Your task to perform on an android device: Open Google Image 0: 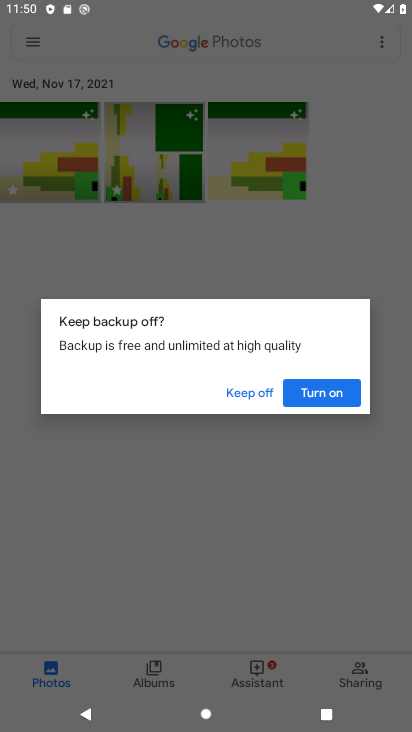
Step 0: press back button
Your task to perform on an android device: Open Google Image 1: 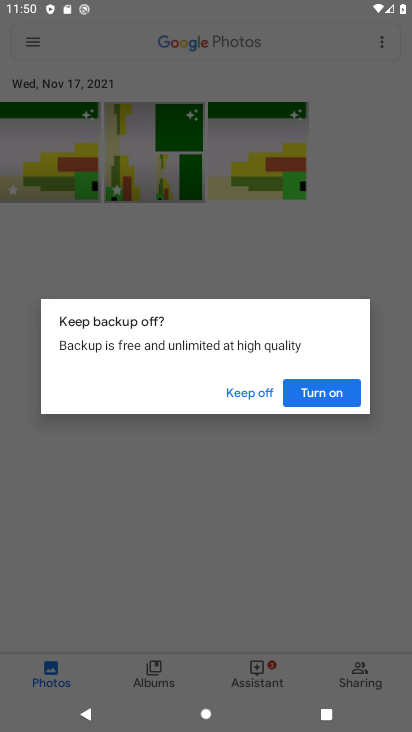
Step 1: press back button
Your task to perform on an android device: Open Google Image 2: 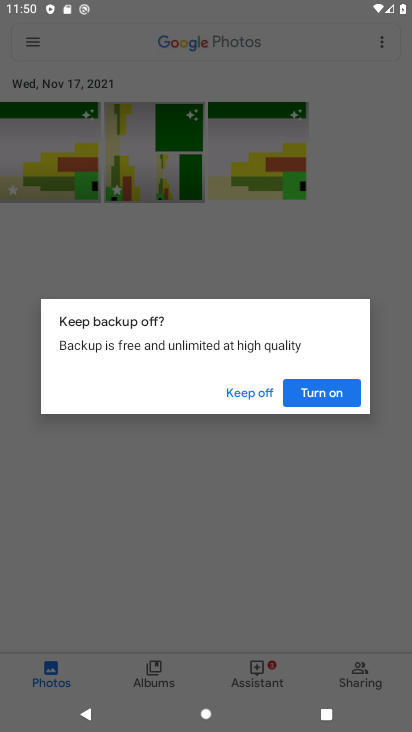
Step 2: press home button
Your task to perform on an android device: Open Google Image 3: 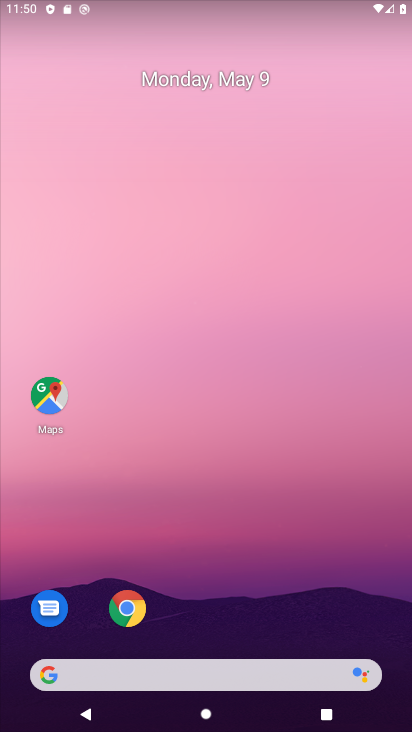
Step 3: drag from (255, 626) to (215, 14)
Your task to perform on an android device: Open Google Image 4: 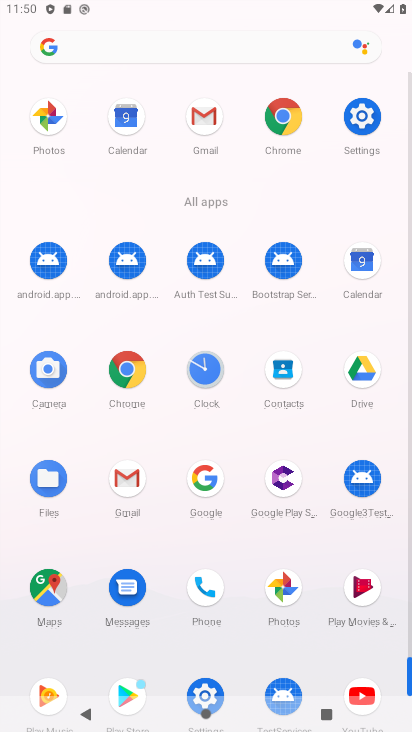
Step 4: click (287, 111)
Your task to perform on an android device: Open Google Image 5: 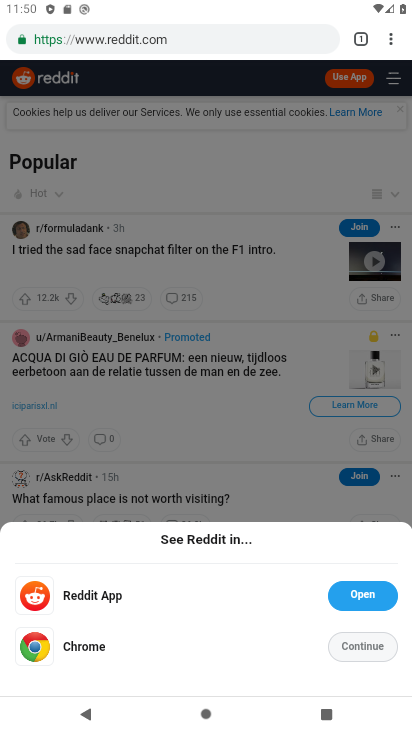
Step 5: click (187, 36)
Your task to perform on an android device: Open Google Image 6: 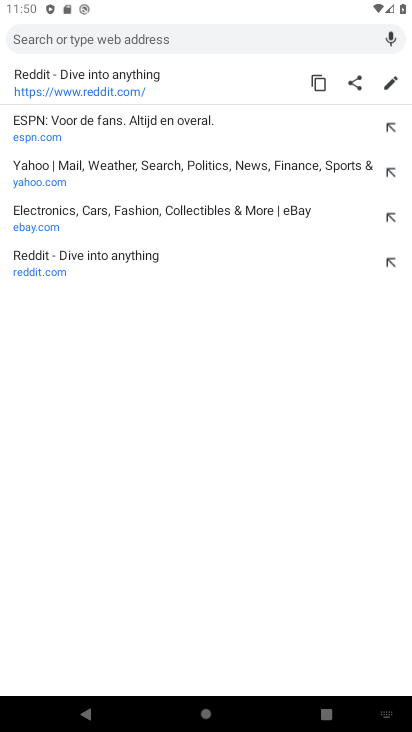
Step 6: type "Google"
Your task to perform on an android device: Open Google Image 7: 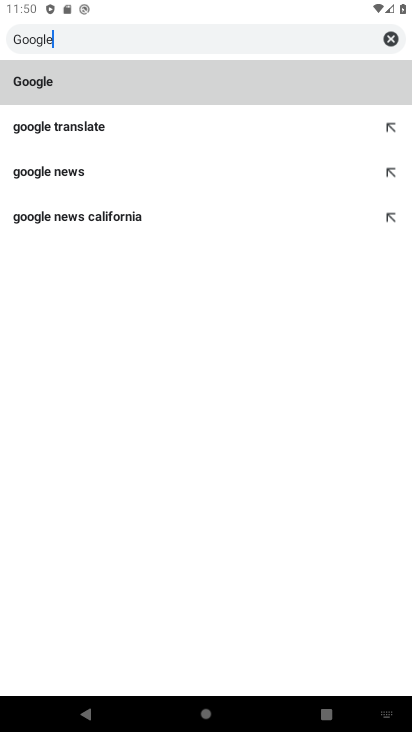
Step 7: type ""
Your task to perform on an android device: Open Google Image 8: 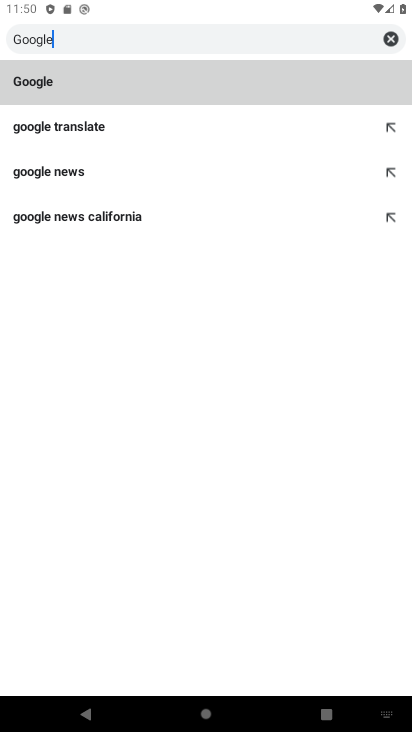
Step 8: click (107, 90)
Your task to perform on an android device: Open Google Image 9: 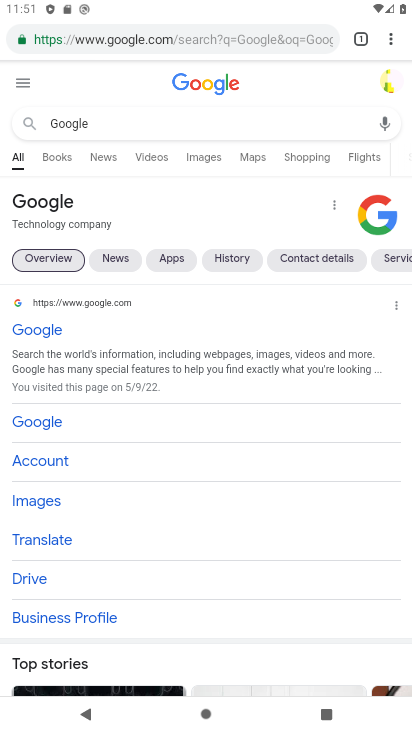
Step 9: click (34, 328)
Your task to perform on an android device: Open Google Image 10: 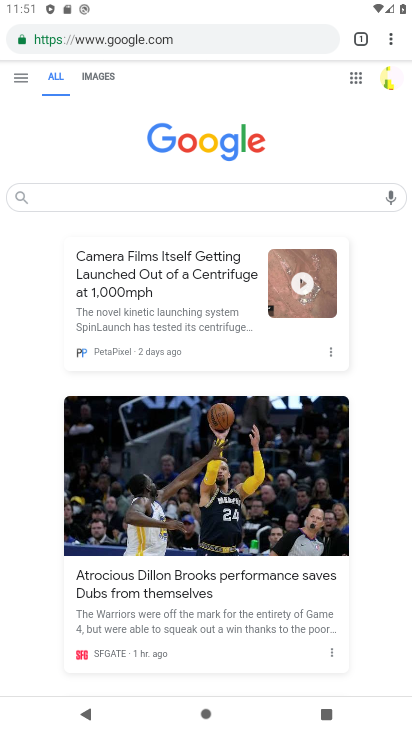
Step 10: task complete